Your task to perform on an android device: turn off smart reply in the gmail app Image 0: 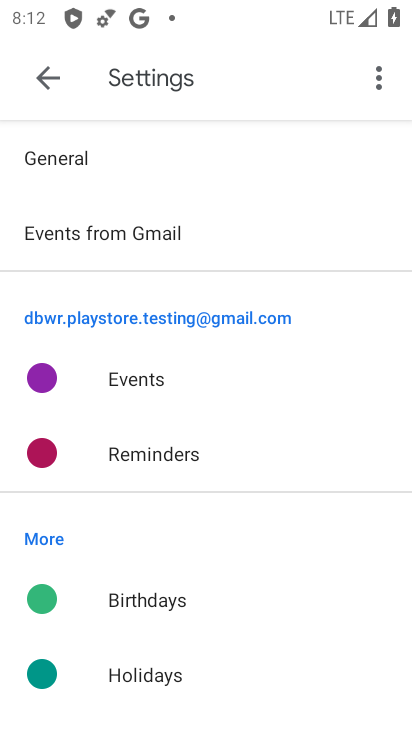
Step 0: press back button
Your task to perform on an android device: turn off smart reply in the gmail app Image 1: 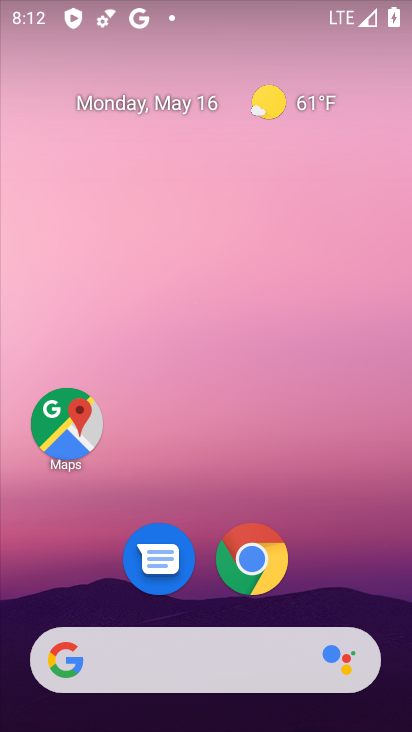
Step 1: drag from (194, 594) to (284, 81)
Your task to perform on an android device: turn off smart reply in the gmail app Image 2: 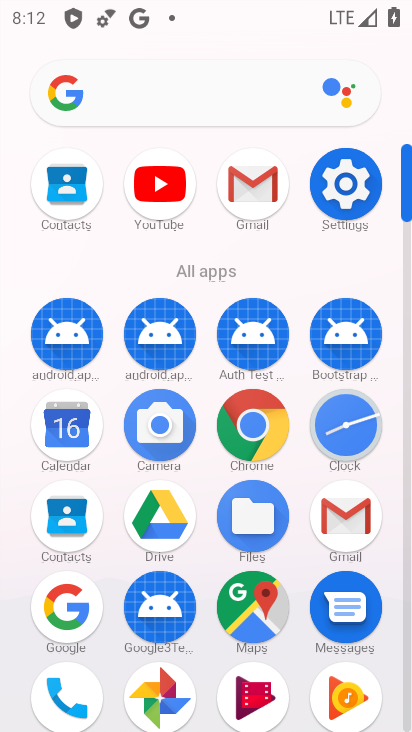
Step 2: click (240, 175)
Your task to perform on an android device: turn off smart reply in the gmail app Image 3: 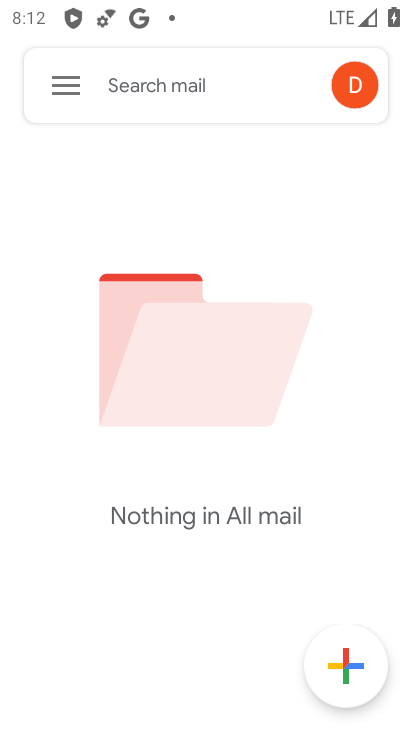
Step 3: click (72, 82)
Your task to perform on an android device: turn off smart reply in the gmail app Image 4: 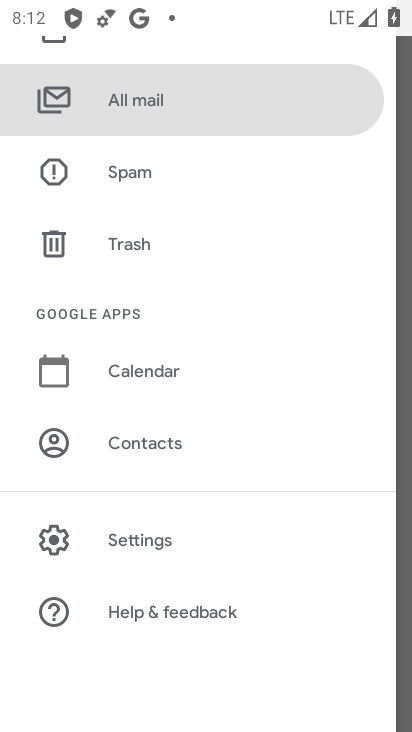
Step 4: click (141, 547)
Your task to perform on an android device: turn off smart reply in the gmail app Image 5: 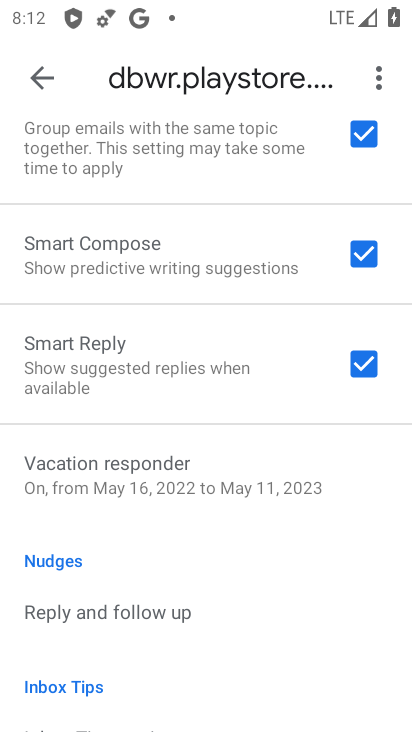
Step 5: click (367, 362)
Your task to perform on an android device: turn off smart reply in the gmail app Image 6: 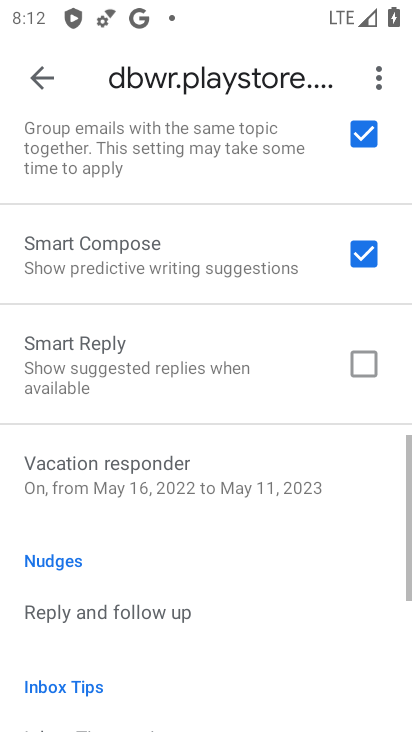
Step 6: task complete